Your task to perform on an android device: turn on showing notifications on the lock screen Image 0: 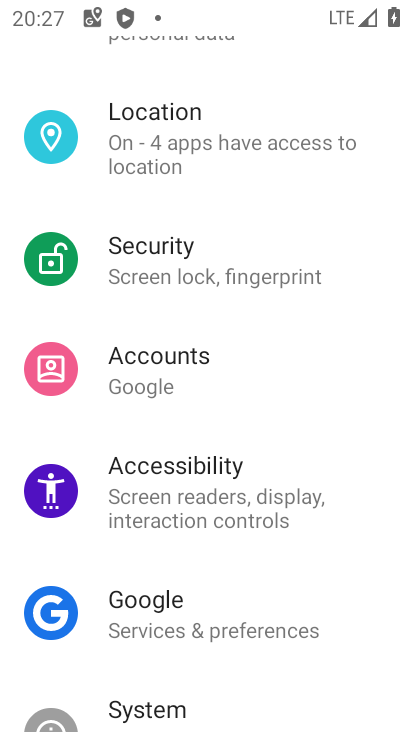
Step 0: press home button
Your task to perform on an android device: turn on showing notifications on the lock screen Image 1: 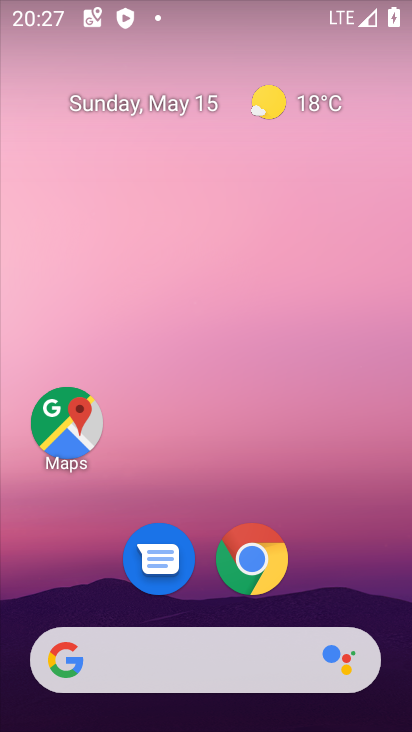
Step 1: drag from (267, 440) to (167, 95)
Your task to perform on an android device: turn on showing notifications on the lock screen Image 2: 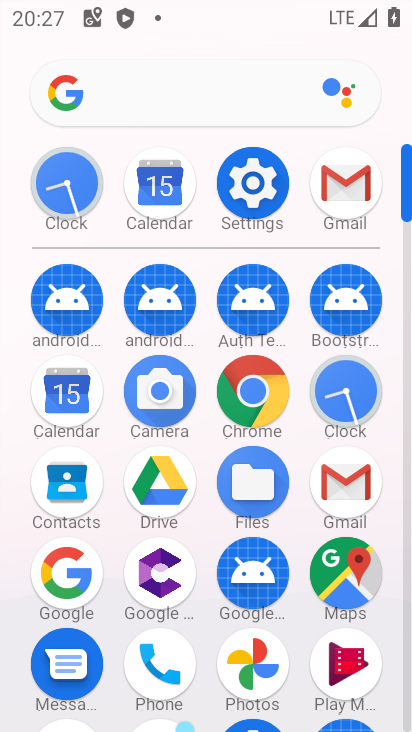
Step 2: click (251, 175)
Your task to perform on an android device: turn on showing notifications on the lock screen Image 3: 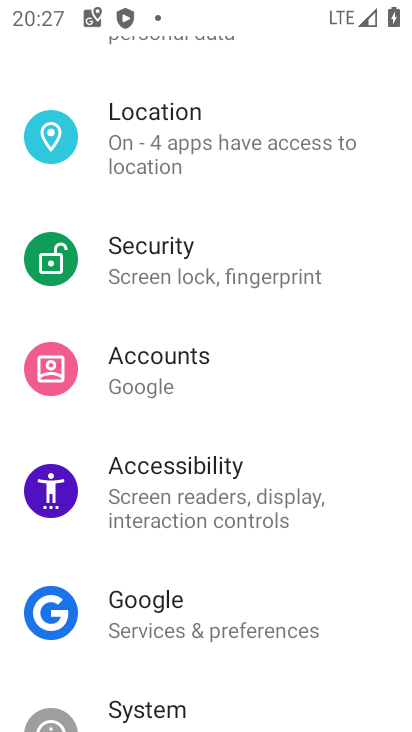
Step 3: drag from (244, 229) to (235, 712)
Your task to perform on an android device: turn on showing notifications on the lock screen Image 4: 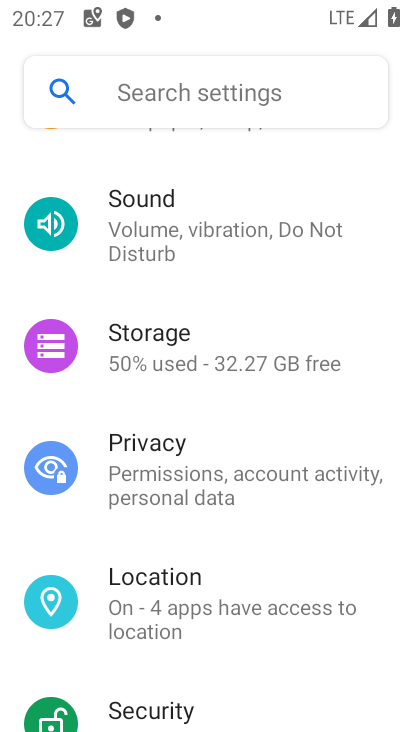
Step 4: drag from (204, 293) to (243, 666)
Your task to perform on an android device: turn on showing notifications on the lock screen Image 5: 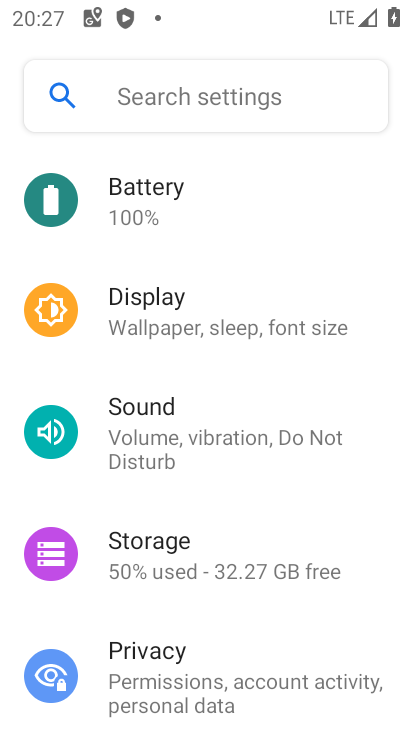
Step 5: drag from (166, 267) to (208, 718)
Your task to perform on an android device: turn on showing notifications on the lock screen Image 6: 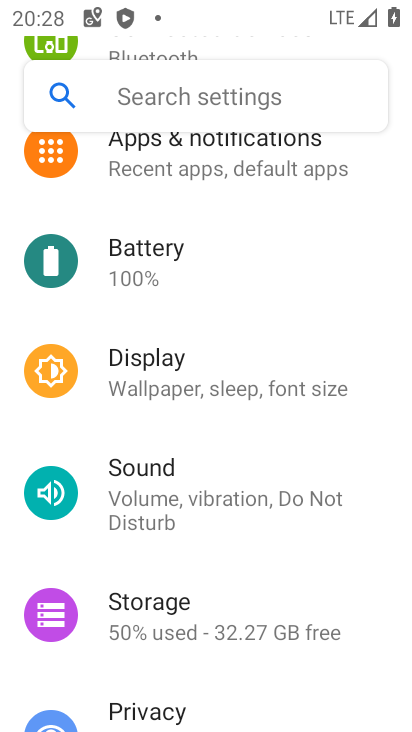
Step 6: drag from (204, 282) to (202, 697)
Your task to perform on an android device: turn on showing notifications on the lock screen Image 7: 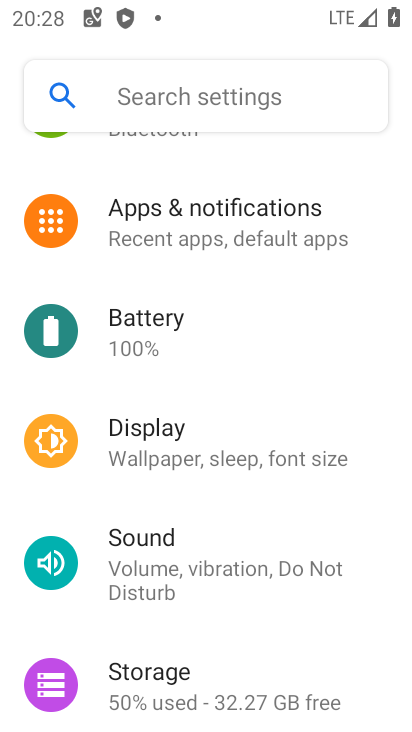
Step 7: click (203, 206)
Your task to perform on an android device: turn on showing notifications on the lock screen Image 8: 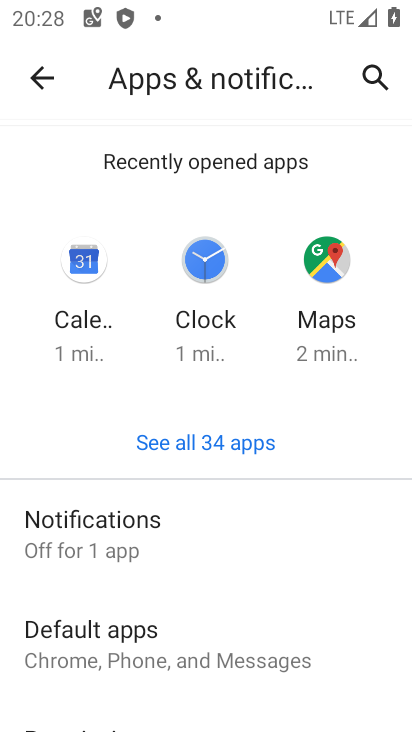
Step 8: drag from (214, 575) to (189, 278)
Your task to perform on an android device: turn on showing notifications on the lock screen Image 9: 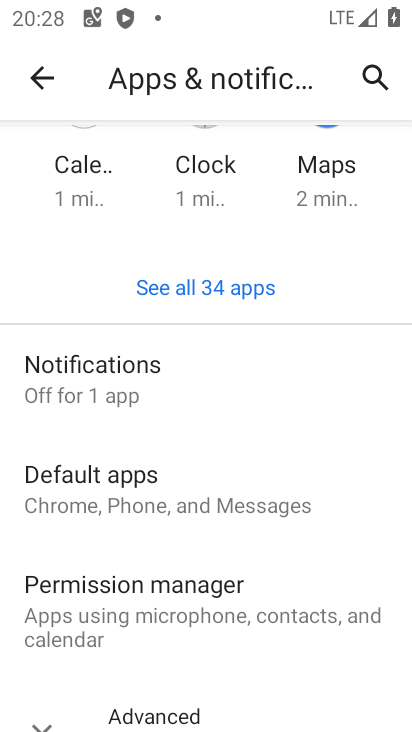
Step 9: click (87, 356)
Your task to perform on an android device: turn on showing notifications on the lock screen Image 10: 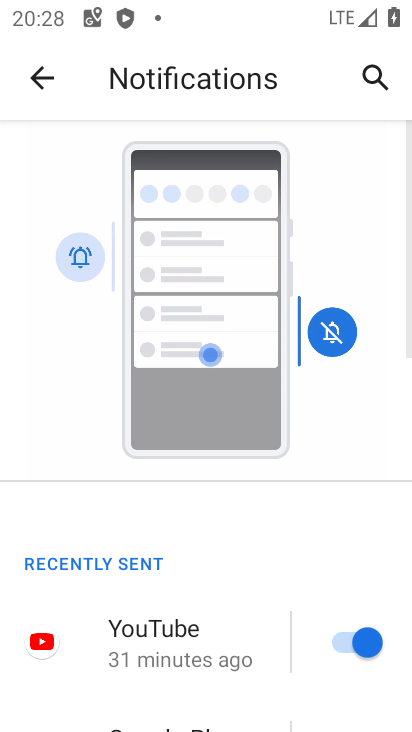
Step 10: drag from (246, 499) to (223, 132)
Your task to perform on an android device: turn on showing notifications on the lock screen Image 11: 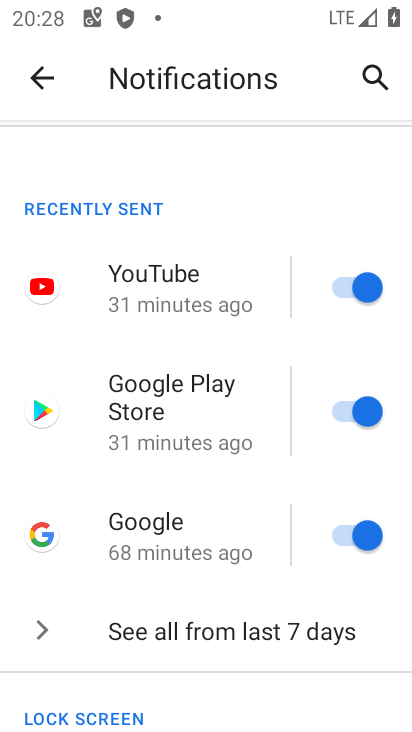
Step 11: drag from (213, 564) to (148, 219)
Your task to perform on an android device: turn on showing notifications on the lock screen Image 12: 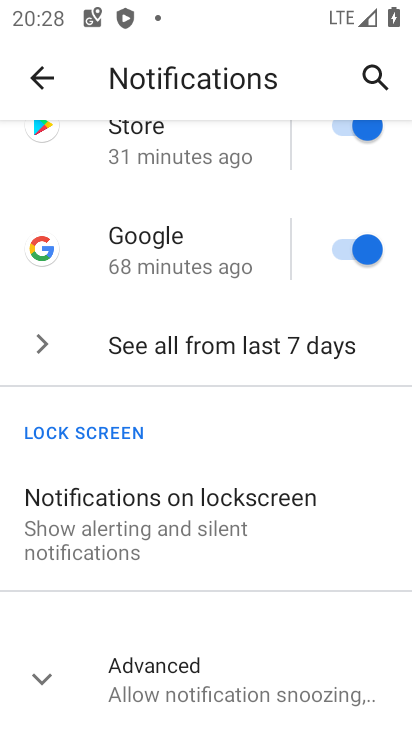
Step 12: drag from (196, 572) to (140, 293)
Your task to perform on an android device: turn on showing notifications on the lock screen Image 13: 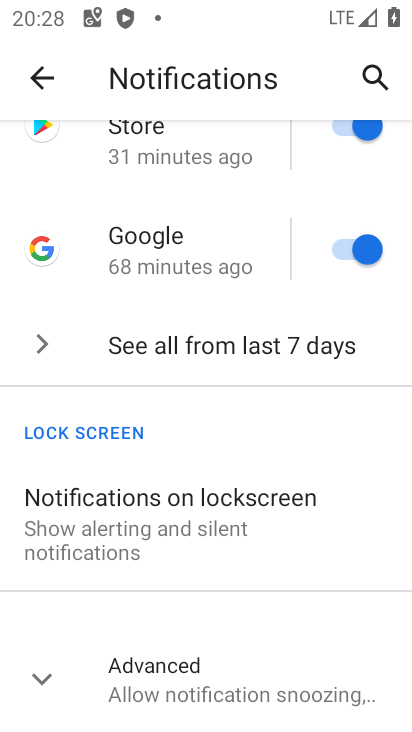
Step 13: click (144, 496)
Your task to perform on an android device: turn on showing notifications on the lock screen Image 14: 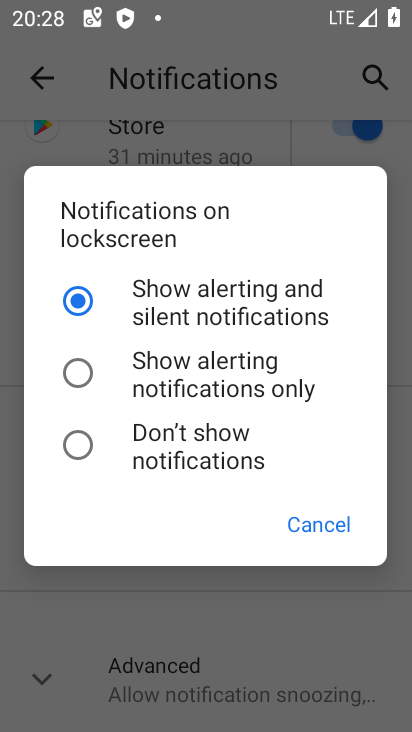
Step 14: task complete